Your task to perform on an android device: turn off improve location accuracy Image 0: 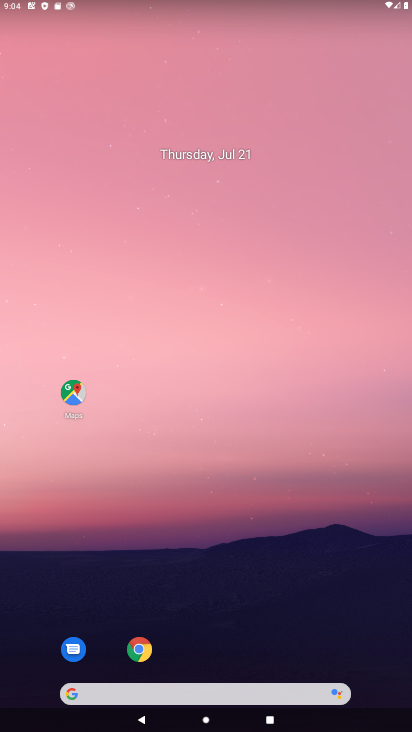
Step 0: drag from (251, 609) to (230, 90)
Your task to perform on an android device: turn off improve location accuracy Image 1: 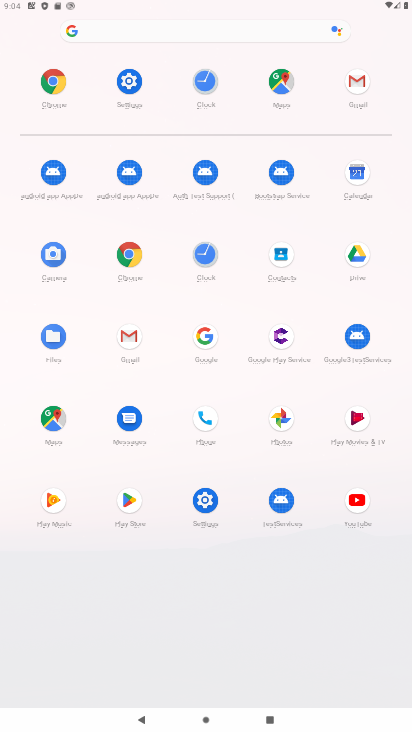
Step 1: click (200, 510)
Your task to perform on an android device: turn off improve location accuracy Image 2: 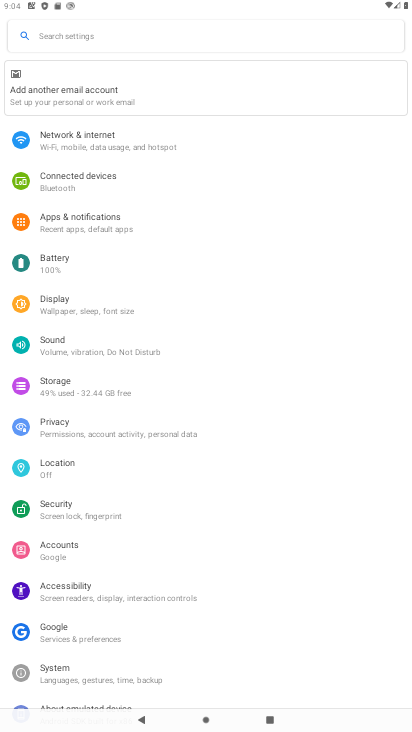
Step 2: click (61, 473)
Your task to perform on an android device: turn off improve location accuracy Image 3: 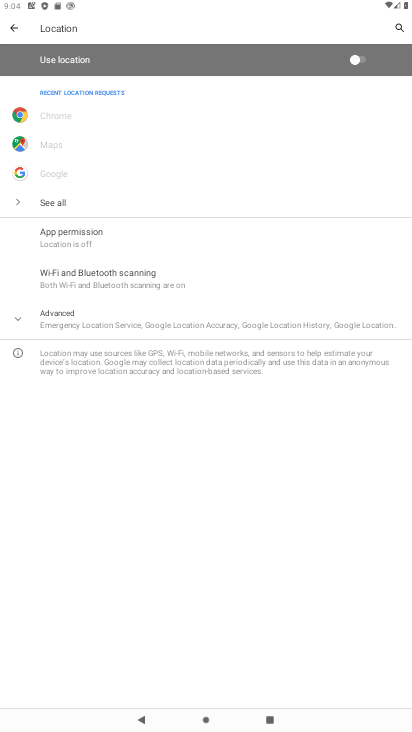
Step 3: click (90, 325)
Your task to perform on an android device: turn off improve location accuracy Image 4: 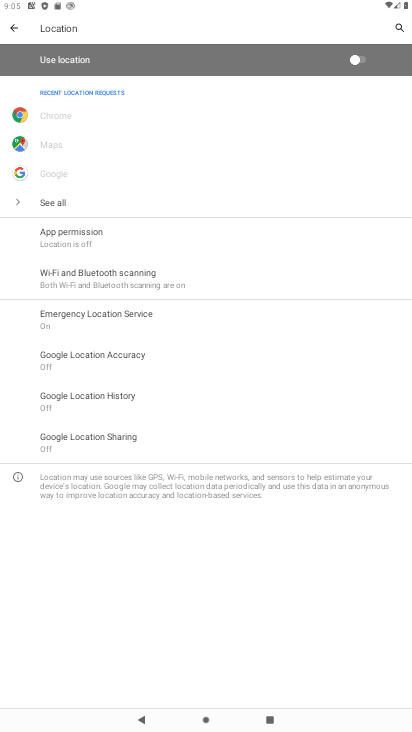
Step 4: click (118, 361)
Your task to perform on an android device: turn off improve location accuracy Image 5: 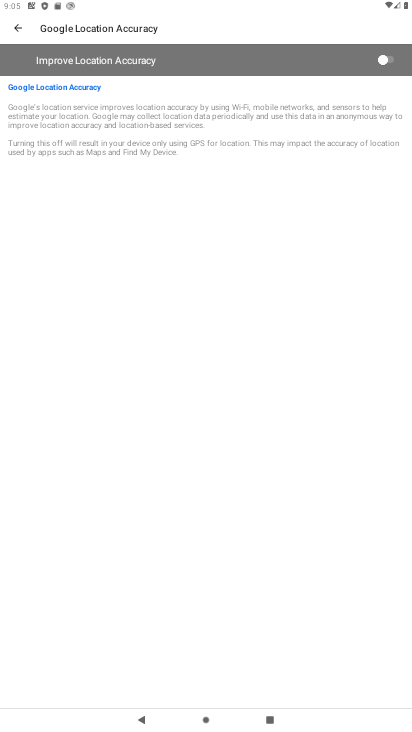
Step 5: task complete